Your task to perform on an android device: Search for vegetarian restaurants on Maps Image 0: 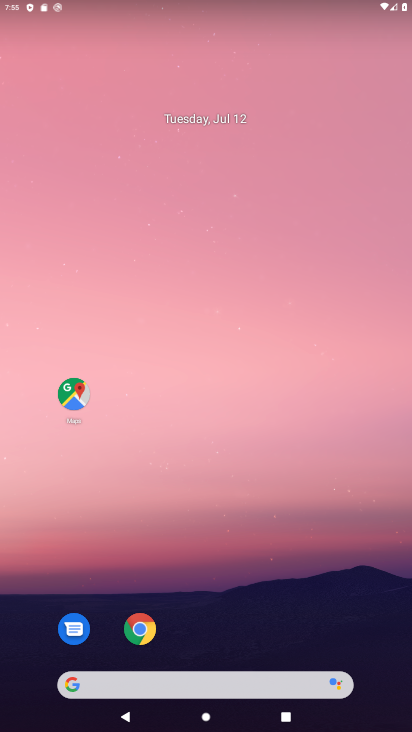
Step 0: drag from (209, 599) to (271, 170)
Your task to perform on an android device: Search for vegetarian restaurants on Maps Image 1: 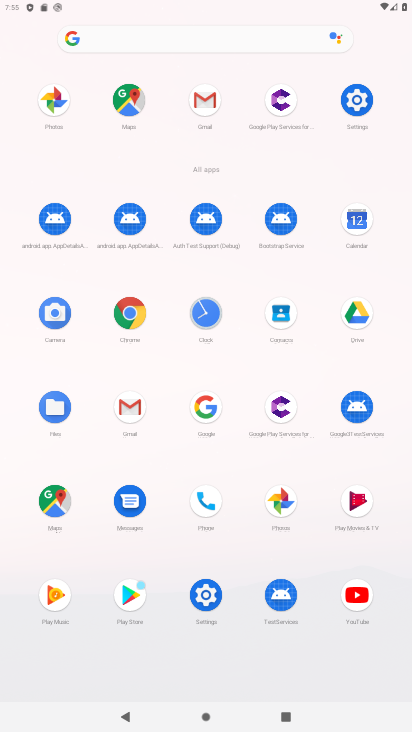
Step 1: click (48, 496)
Your task to perform on an android device: Search for vegetarian restaurants on Maps Image 2: 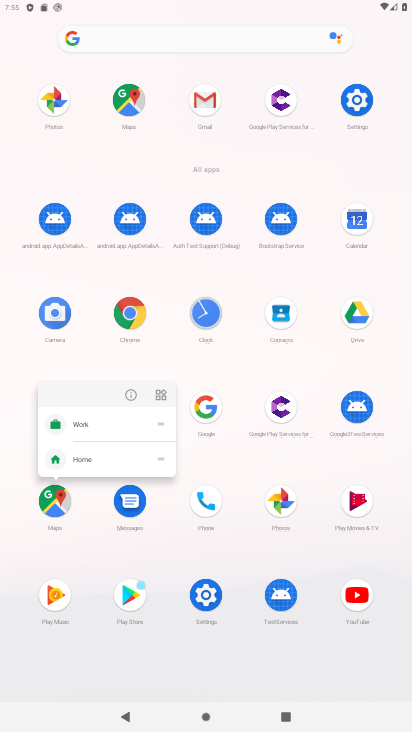
Step 2: click (56, 491)
Your task to perform on an android device: Search for vegetarian restaurants on Maps Image 3: 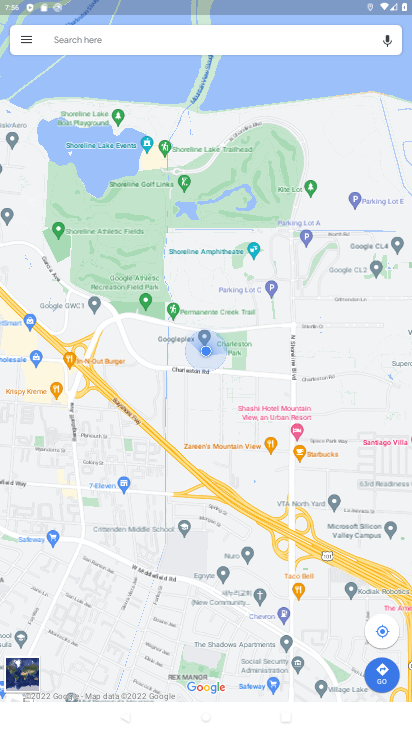
Step 3: click (248, 37)
Your task to perform on an android device: Search for vegetarian restaurants on Maps Image 4: 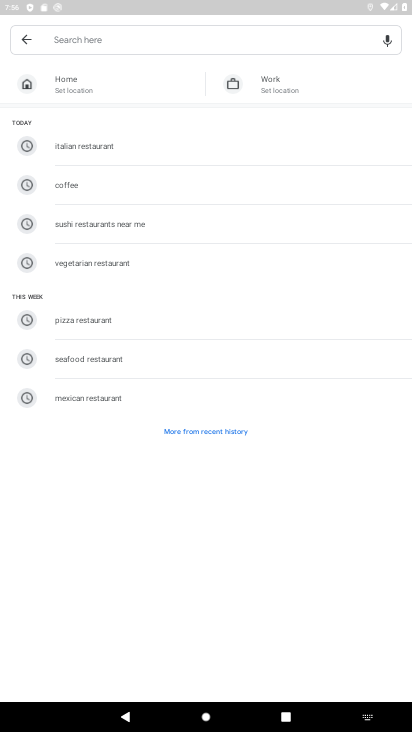
Step 4: type " vegetarian restaurants "
Your task to perform on an android device: Search for vegetarian restaurants on Maps Image 5: 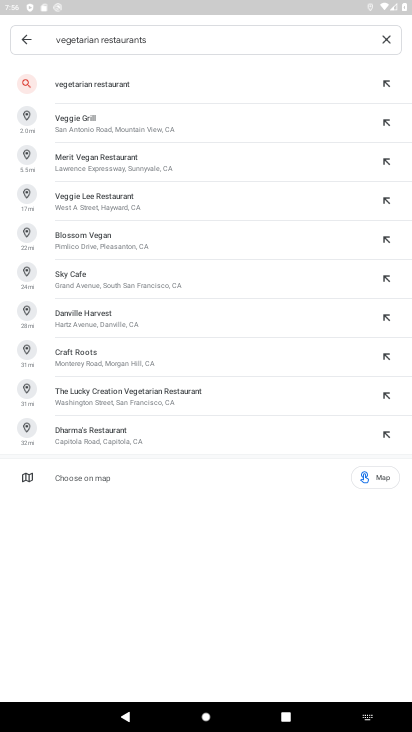
Step 5: click (144, 87)
Your task to perform on an android device: Search for vegetarian restaurants on Maps Image 6: 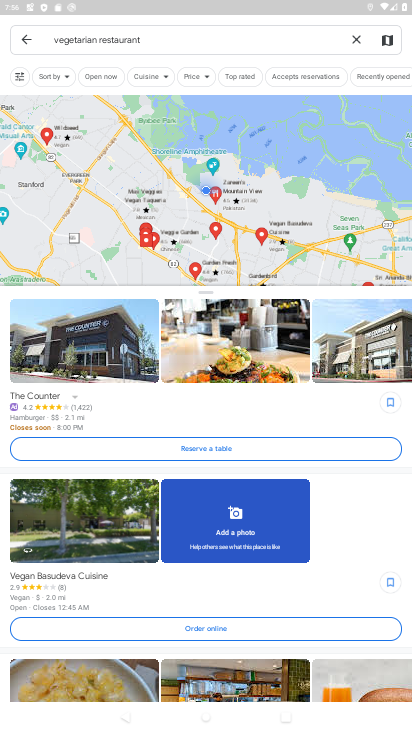
Step 6: task complete